Your task to perform on an android device: change alarm snooze length Image 0: 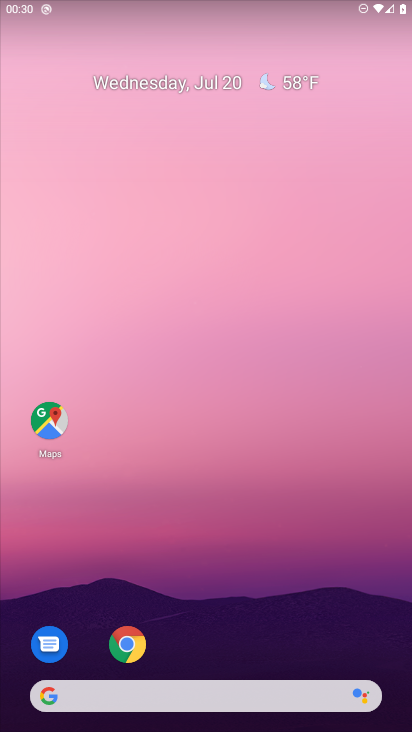
Step 0: drag from (67, 485) to (199, 117)
Your task to perform on an android device: change alarm snooze length Image 1: 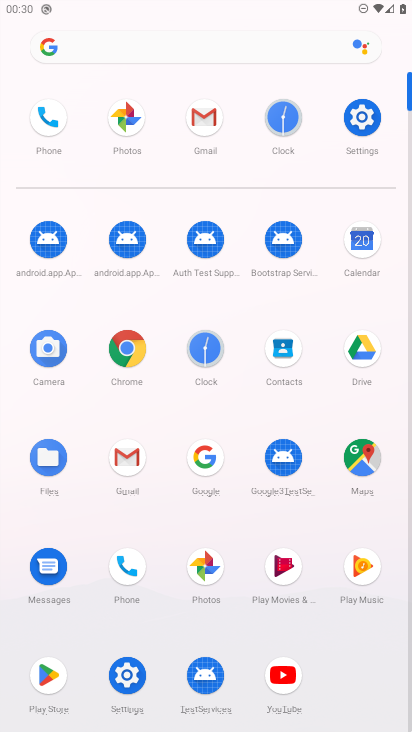
Step 1: click (124, 460)
Your task to perform on an android device: change alarm snooze length Image 2: 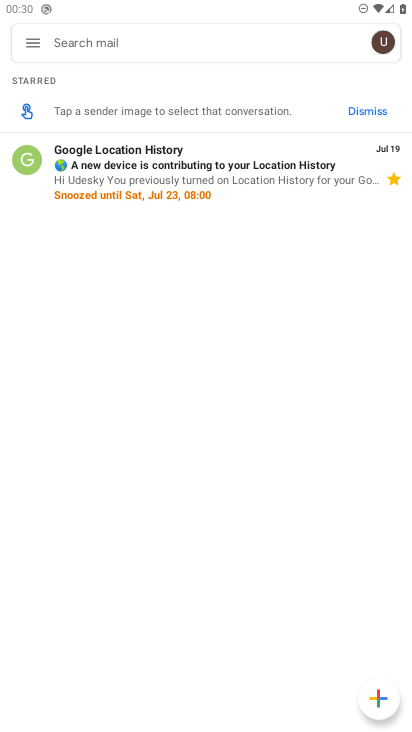
Step 2: click (35, 36)
Your task to perform on an android device: change alarm snooze length Image 3: 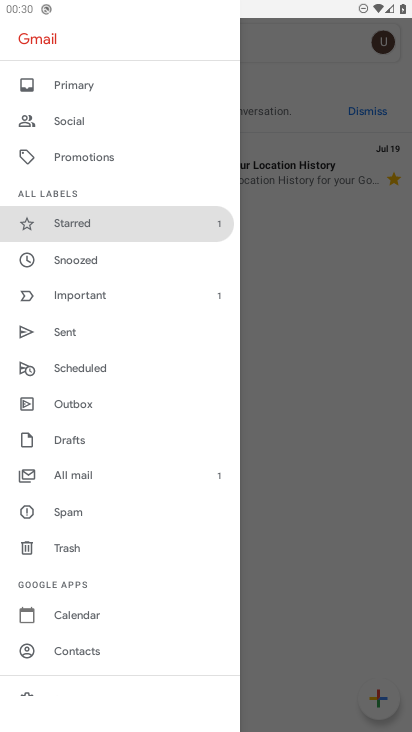
Step 3: click (83, 254)
Your task to perform on an android device: change alarm snooze length Image 4: 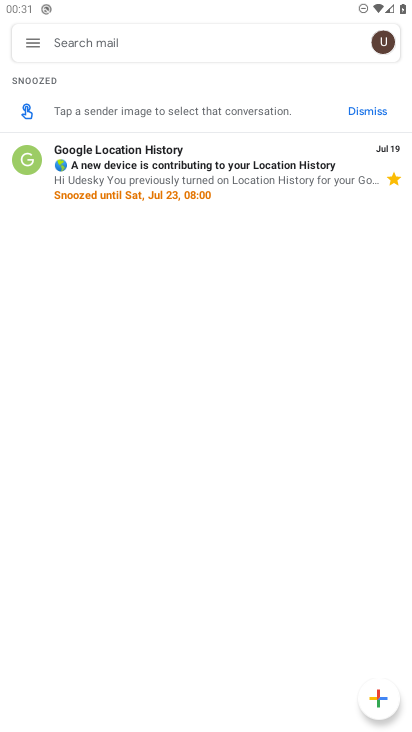
Step 4: task complete